Your task to perform on an android device: open device folders in google photos Image 0: 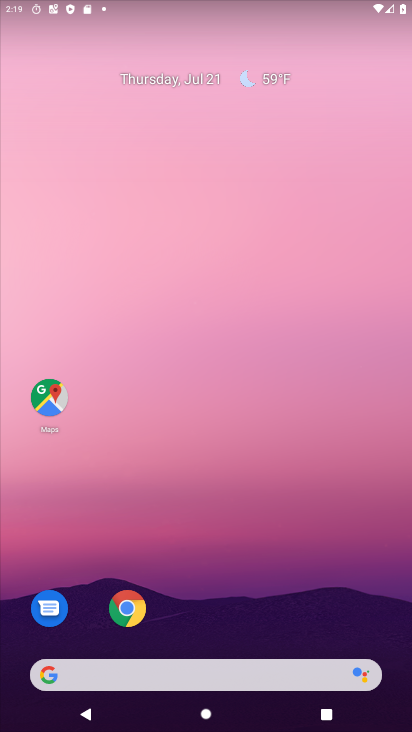
Step 0: drag from (255, 633) to (283, 28)
Your task to perform on an android device: open device folders in google photos Image 1: 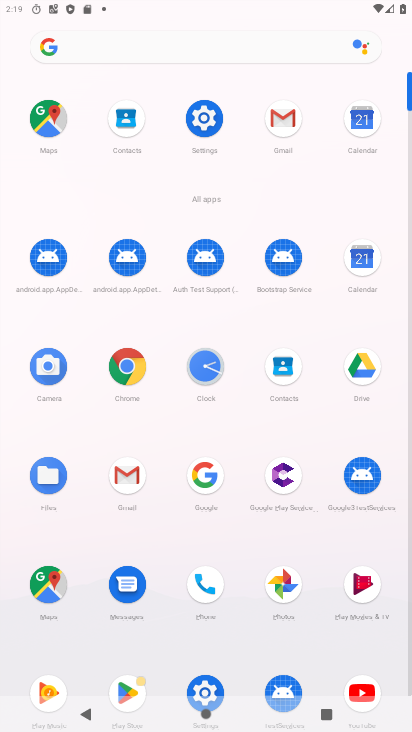
Step 1: click (282, 575)
Your task to perform on an android device: open device folders in google photos Image 2: 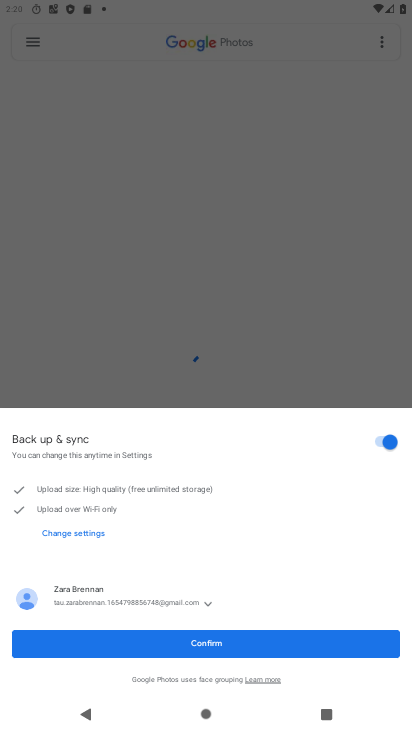
Step 2: click (206, 648)
Your task to perform on an android device: open device folders in google photos Image 3: 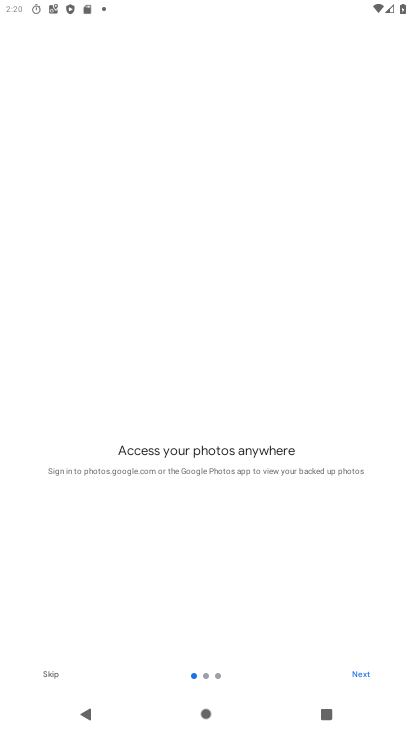
Step 3: click (34, 677)
Your task to perform on an android device: open device folders in google photos Image 4: 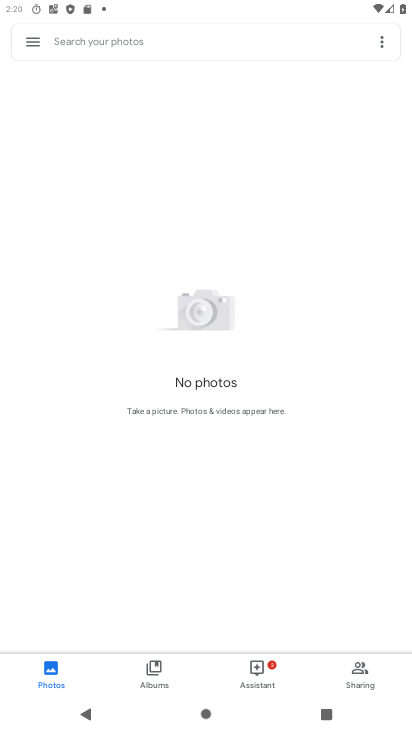
Step 4: click (22, 48)
Your task to perform on an android device: open device folders in google photos Image 5: 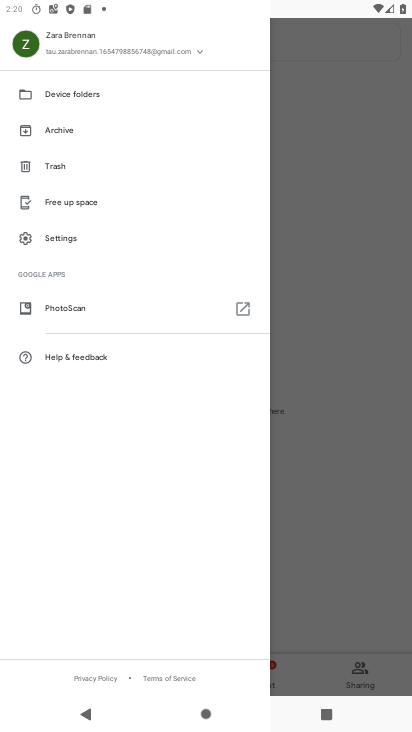
Step 5: click (98, 98)
Your task to perform on an android device: open device folders in google photos Image 6: 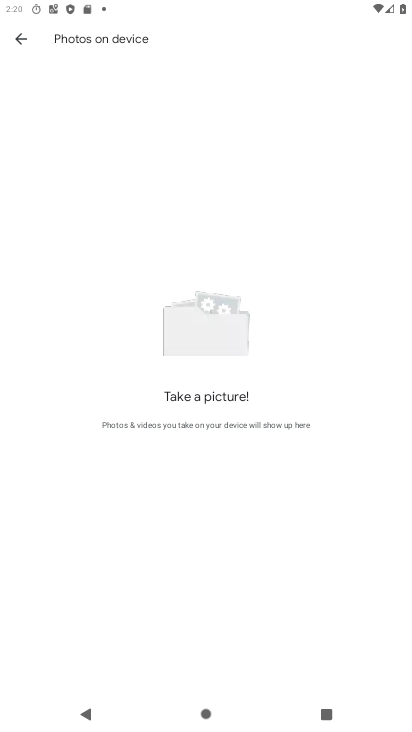
Step 6: task complete